Your task to perform on an android device: turn off sleep mode Image 0: 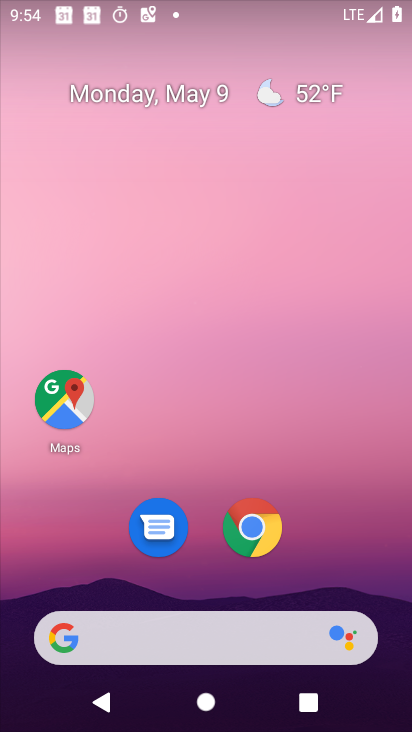
Step 0: drag from (390, 572) to (341, 139)
Your task to perform on an android device: turn off sleep mode Image 1: 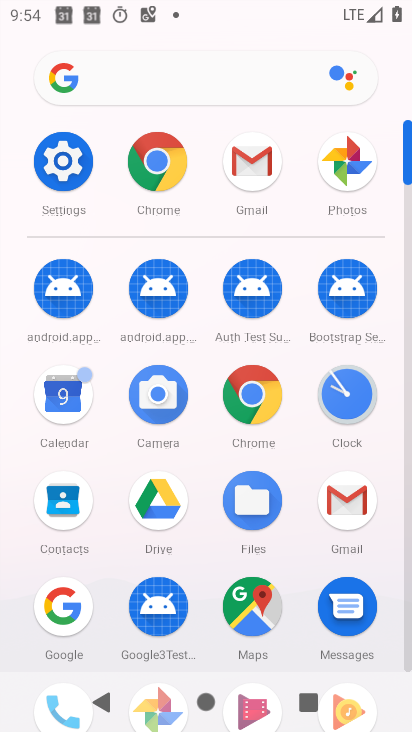
Step 1: click (68, 150)
Your task to perform on an android device: turn off sleep mode Image 2: 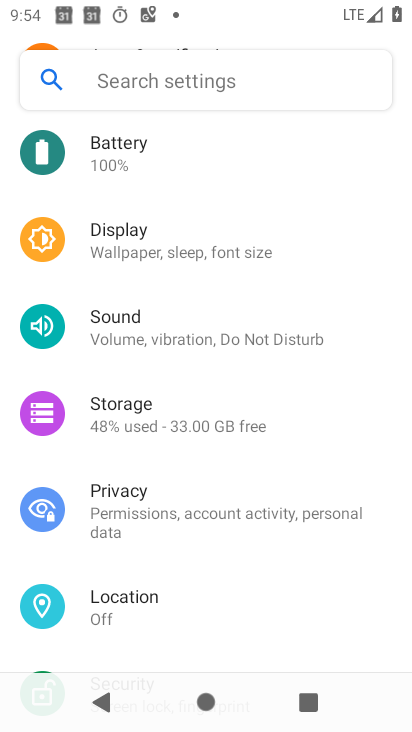
Step 2: click (229, 95)
Your task to perform on an android device: turn off sleep mode Image 3: 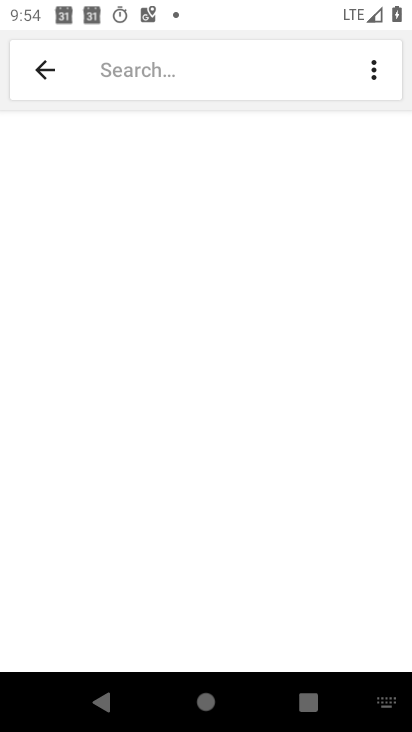
Step 3: type "sleep mode"
Your task to perform on an android device: turn off sleep mode Image 4: 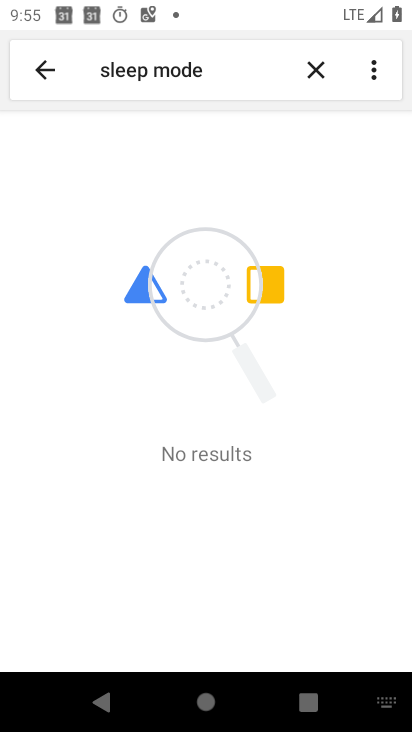
Step 4: task complete